Your task to perform on an android device: Go to Yahoo.com Image 0: 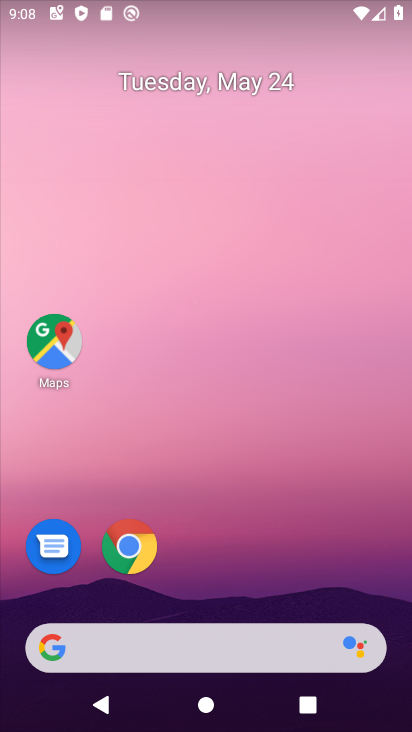
Step 0: click (130, 551)
Your task to perform on an android device: Go to Yahoo.com Image 1: 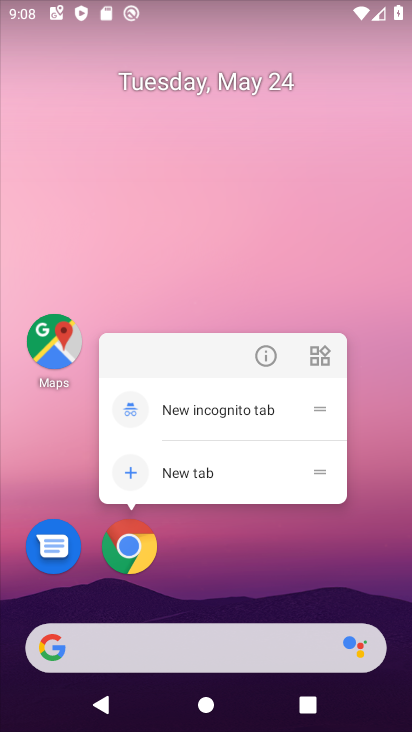
Step 1: click (130, 551)
Your task to perform on an android device: Go to Yahoo.com Image 2: 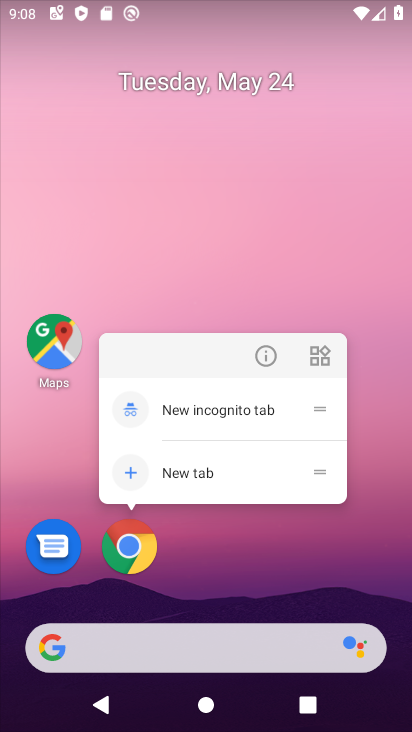
Step 2: click (130, 551)
Your task to perform on an android device: Go to Yahoo.com Image 3: 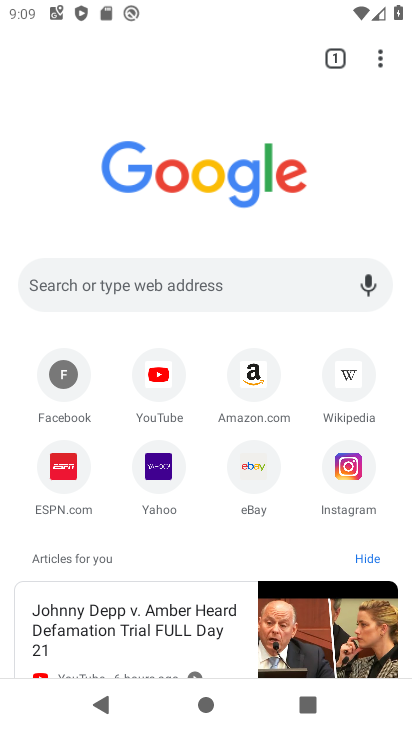
Step 3: click (164, 465)
Your task to perform on an android device: Go to Yahoo.com Image 4: 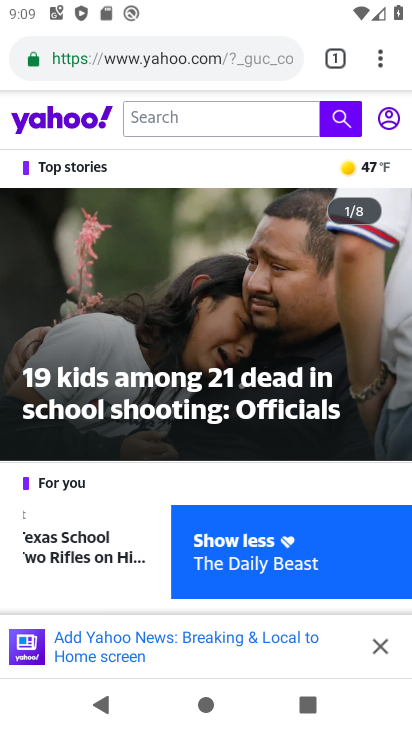
Step 4: task complete